Your task to perform on an android device: toggle wifi Image 0: 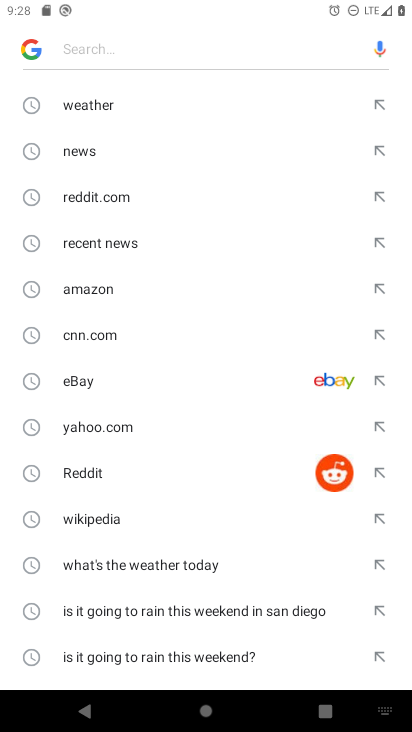
Step 0: press home button
Your task to perform on an android device: toggle wifi Image 1: 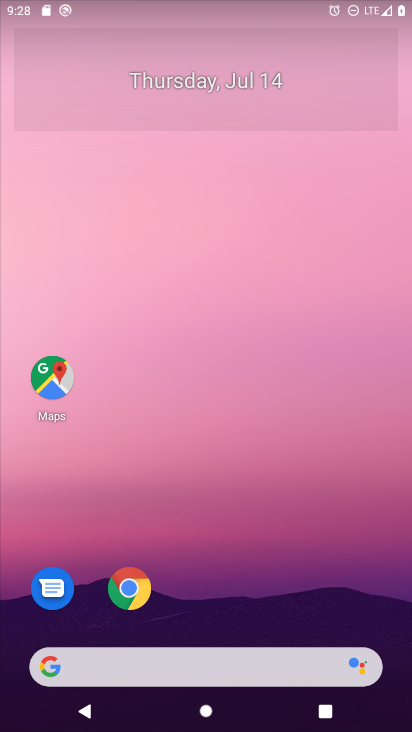
Step 1: drag from (197, 428) to (194, 45)
Your task to perform on an android device: toggle wifi Image 2: 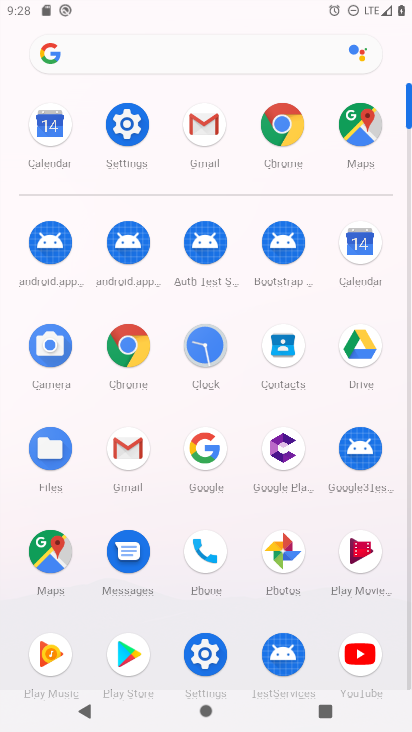
Step 2: click (127, 111)
Your task to perform on an android device: toggle wifi Image 3: 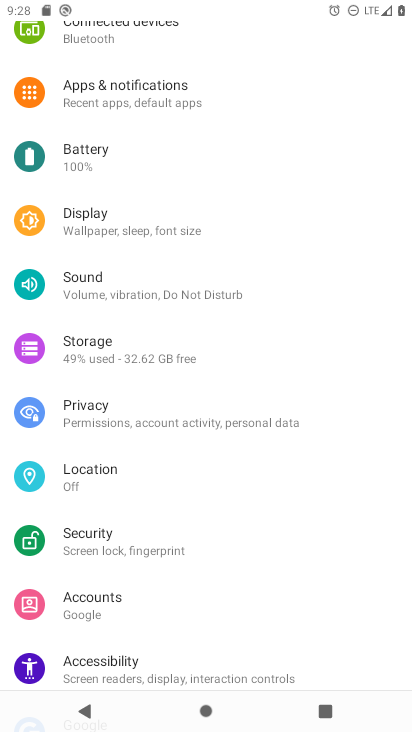
Step 3: drag from (102, 86) to (220, 584)
Your task to perform on an android device: toggle wifi Image 4: 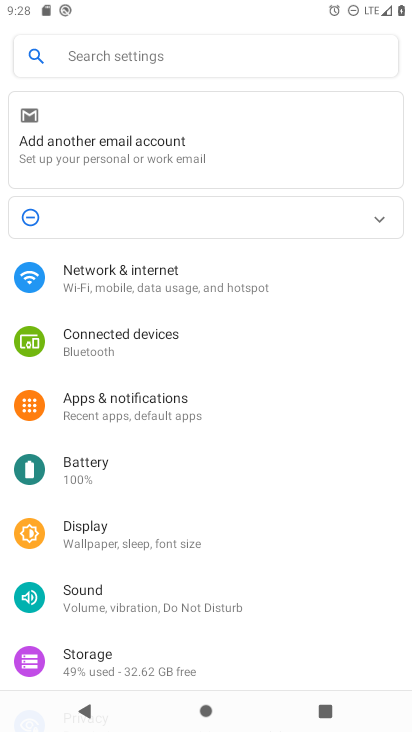
Step 4: click (106, 277)
Your task to perform on an android device: toggle wifi Image 5: 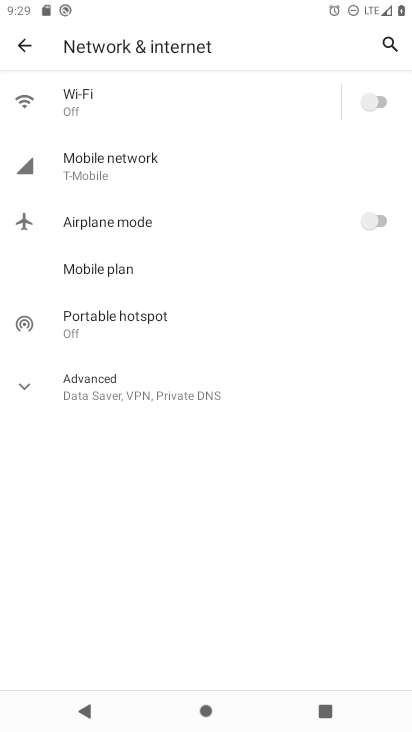
Step 5: click (374, 101)
Your task to perform on an android device: toggle wifi Image 6: 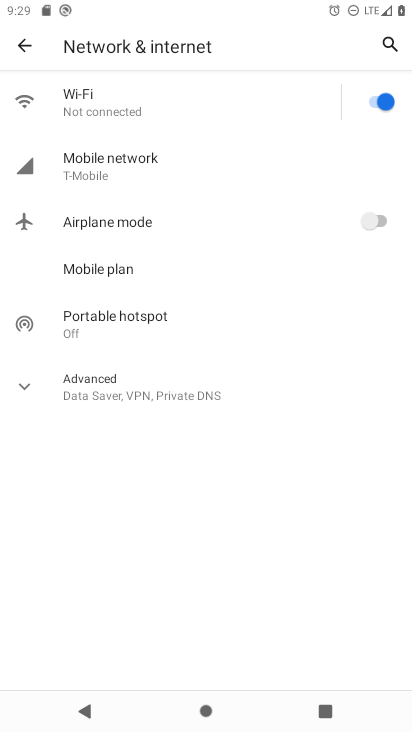
Step 6: task complete